Your task to perform on an android device: Go to sound settings Image 0: 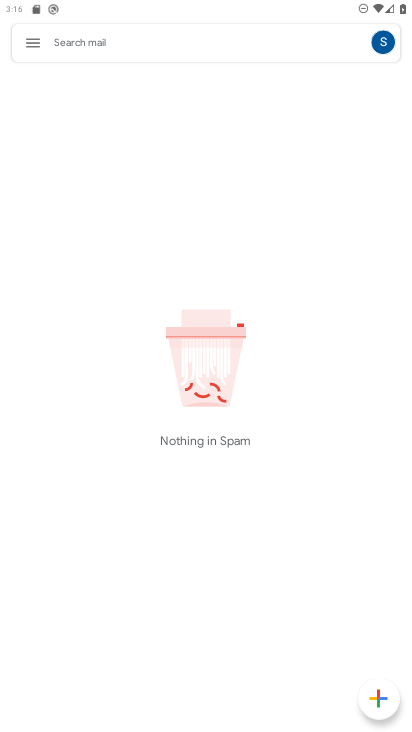
Step 0: press home button
Your task to perform on an android device: Go to sound settings Image 1: 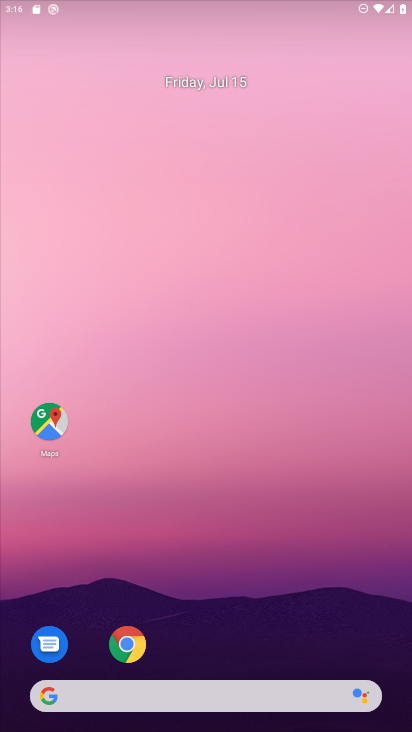
Step 1: drag from (45, 631) to (291, 136)
Your task to perform on an android device: Go to sound settings Image 2: 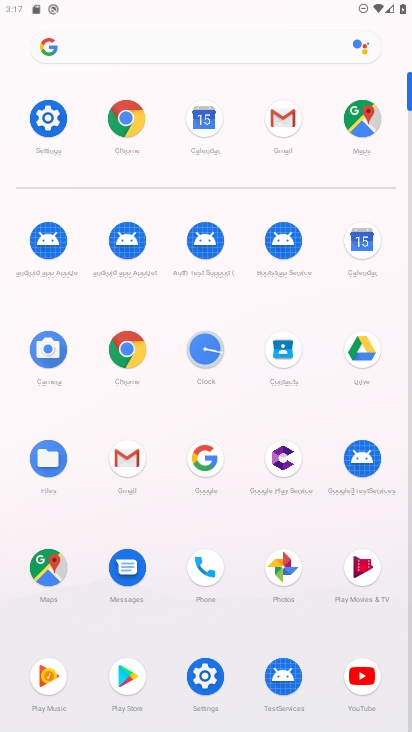
Step 2: click (53, 114)
Your task to perform on an android device: Go to sound settings Image 3: 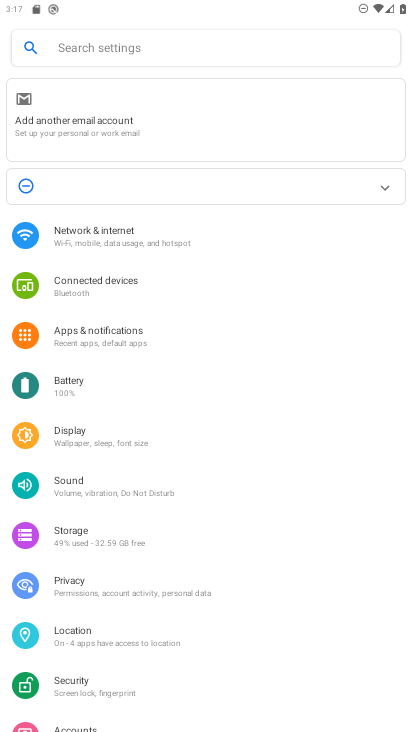
Step 3: click (101, 484)
Your task to perform on an android device: Go to sound settings Image 4: 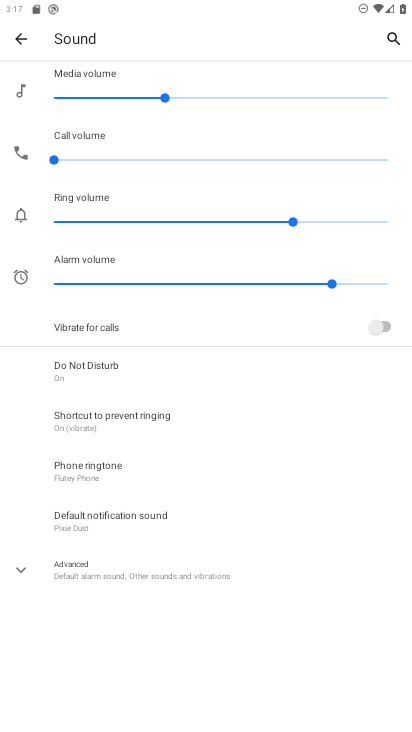
Step 4: task complete